Your task to perform on an android device: move an email to a new category in the gmail app Image 0: 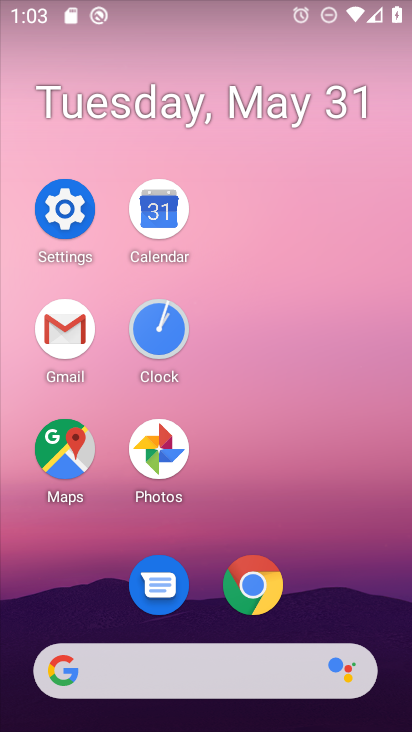
Step 0: click (65, 329)
Your task to perform on an android device: move an email to a new category in the gmail app Image 1: 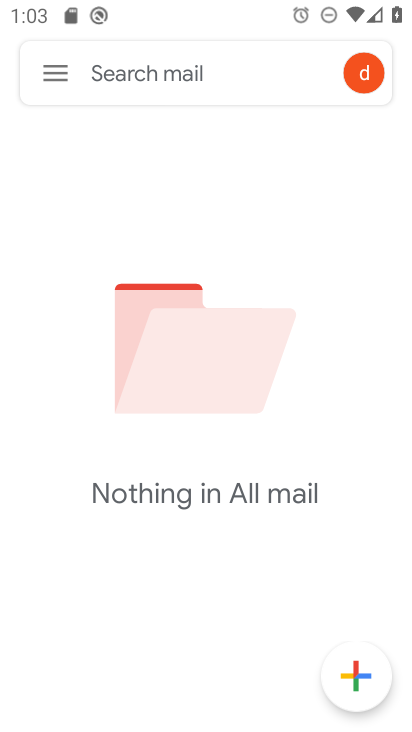
Step 1: click (49, 66)
Your task to perform on an android device: move an email to a new category in the gmail app Image 2: 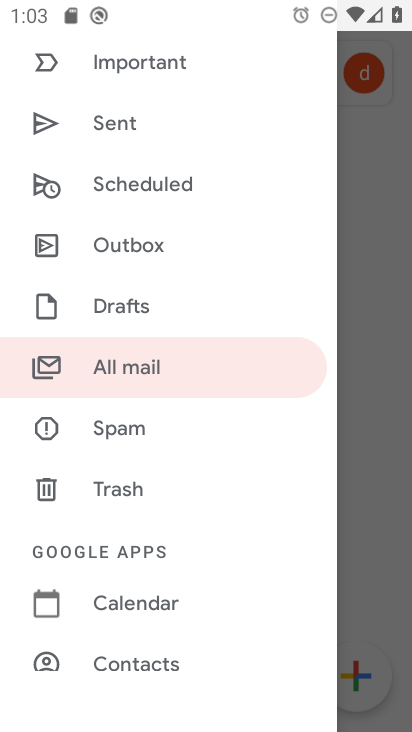
Step 2: click (160, 356)
Your task to perform on an android device: move an email to a new category in the gmail app Image 3: 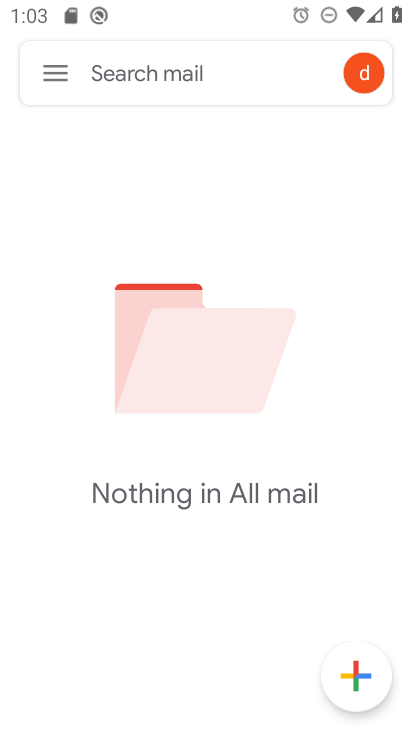
Step 3: task complete